Your task to perform on an android device: move an email to a new category in the gmail app Image 0: 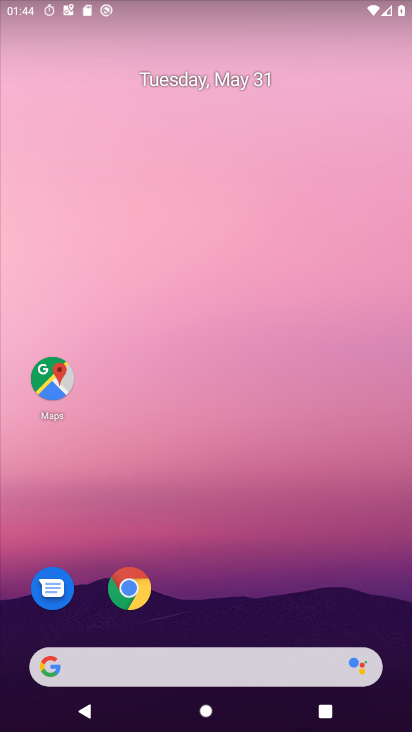
Step 0: drag from (288, 568) to (303, 30)
Your task to perform on an android device: move an email to a new category in the gmail app Image 1: 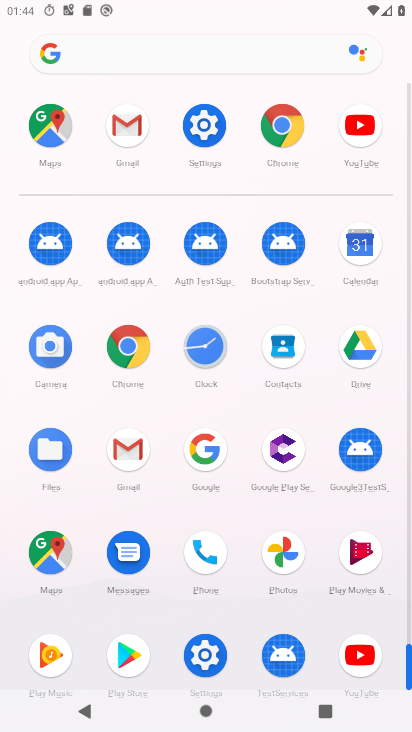
Step 1: click (113, 438)
Your task to perform on an android device: move an email to a new category in the gmail app Image 2: 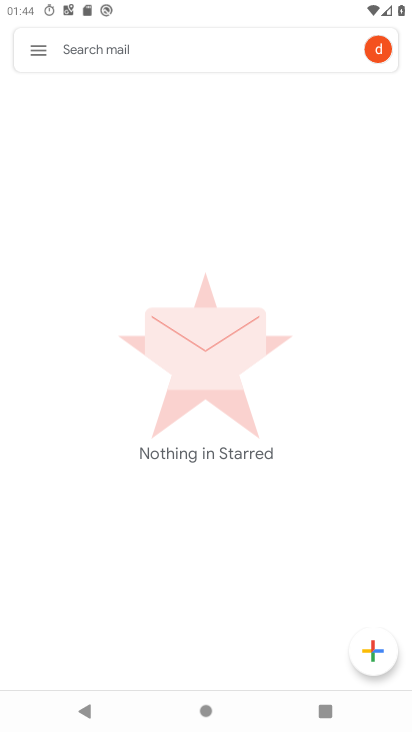
Step 2: click (44, 47)
Your task to perform on an android device: move an email to a new category in the gmail app Image 3: 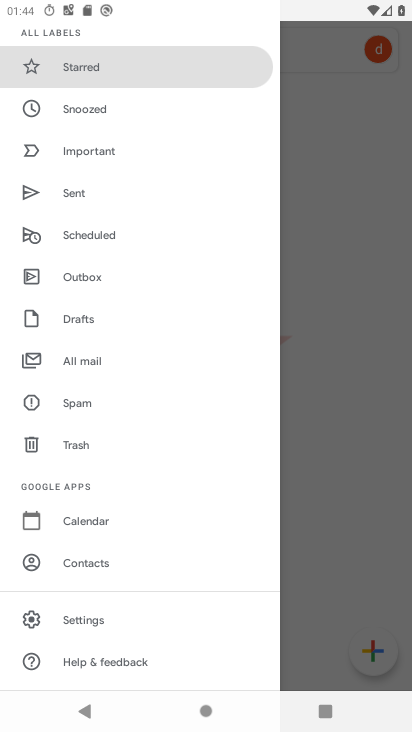
Step 3: click (110, 618)
Your task to perform on an android device: move an email to a new category in the gmail app Image 4: 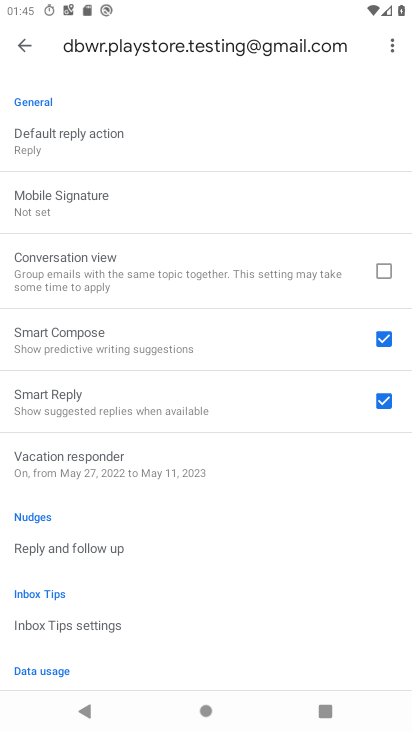
Step 4: press home button
Your task to perform on an android device: move an email to a new category in the gmail app Image 5: 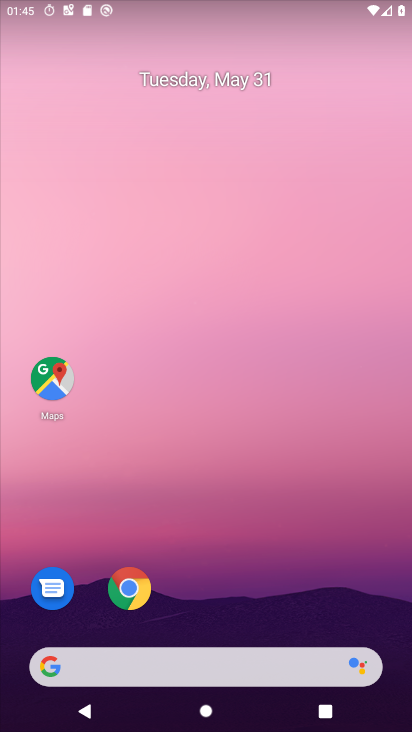
Step 5: drag from (247, 630) to (287, 24)
Your task to perform on an android device: move an email to a new category in the gmail app Image 6: 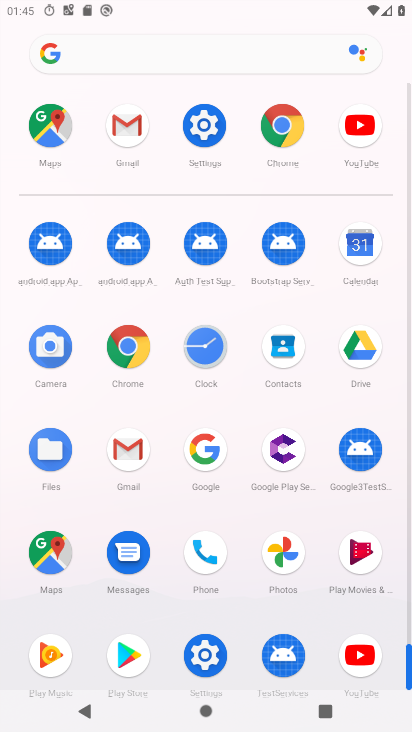
Step 6: click (137, 453)
Your task to perform on an android device: move an email to a new category in the gmail app Image 7: 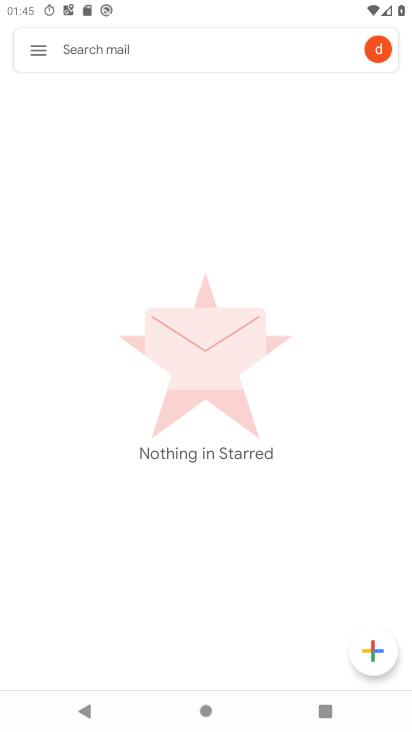
Step 7: task complete